Your task to perform on an android device: Open Google Chrome and open the bookmarks view Image 0: 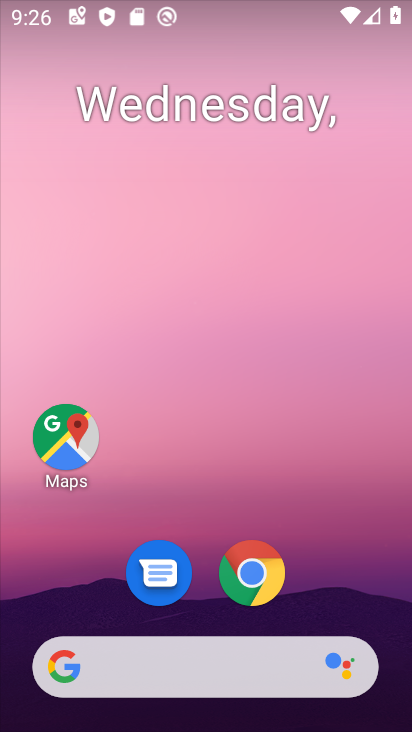
Step 0: click (253, 567)
Your task to perform on an android device: Open Google Chrome and open the bookmarks view Image 1: 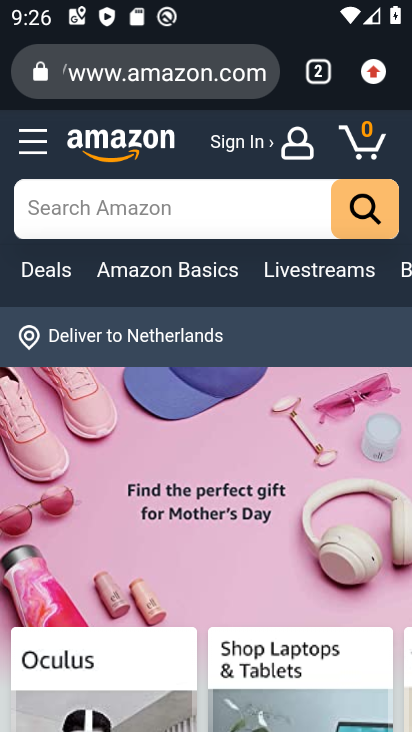
Step 1: click (374, 66)
Your task to perform on an android device: Open Google Chrome and open the bookmarks view Image 2: 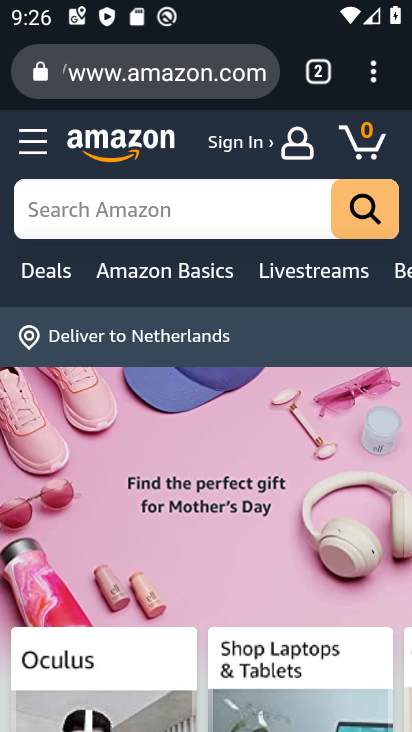
Step 2: click (375, 70)
Your task to perform on an android device: Open Google Chrome and open the bookmarks view Image 3: 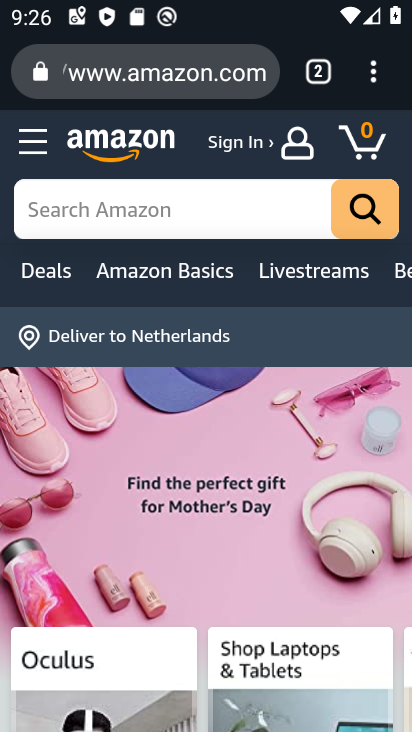
Step 3: click (372, 70)
Your task to perform on an android device: Open Google Chrome and open the bookmarks view Image 4: 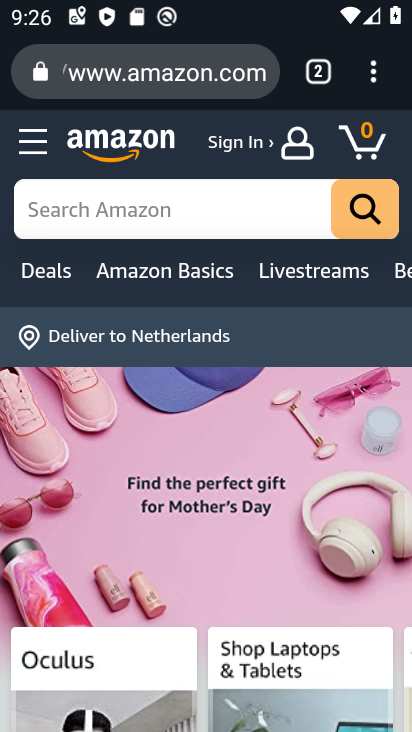
Step 4: click (372, 70)
Your task to perform on an android device: Open Google Chrome and open the bookmarks view Image 5: 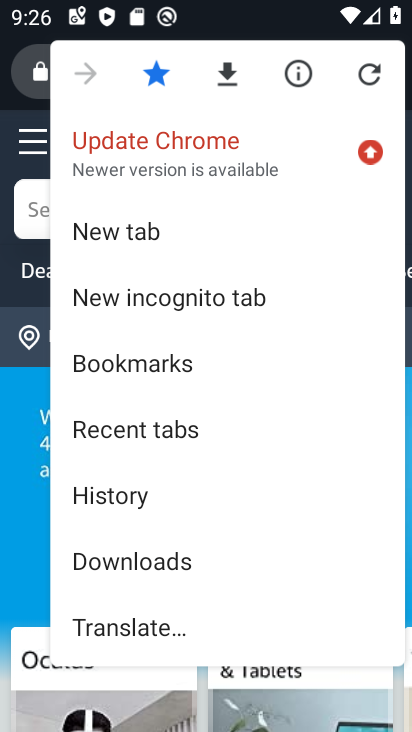
Step 5: click (117, 370)
Your task to perform on an android device: Open Google Chrome and open the bookmarks view Image 6: 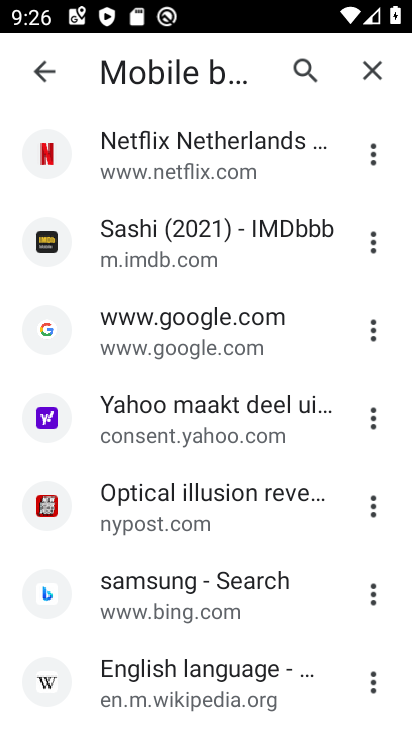
Step 6: task complete